Your task to perform on an android device: turn on showing notifications on the lock screen Image 0: 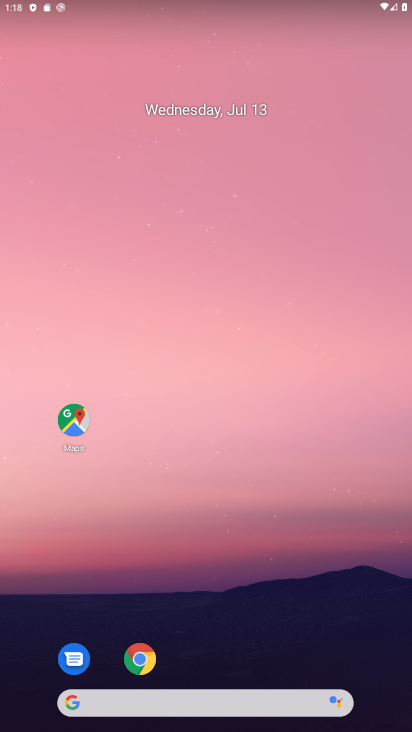
Step 0: drag from (390, 686) to (327, 161)
Your task to perform on an android device: turn on showing notifications on the lock screen Image 1: 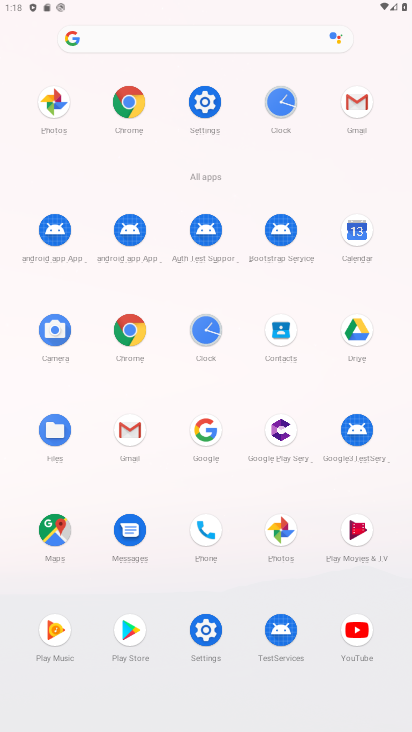
Step 1: click (205, 633)
Your task to perform on an android device: turn on showing notifications on the lock screen Image 2: 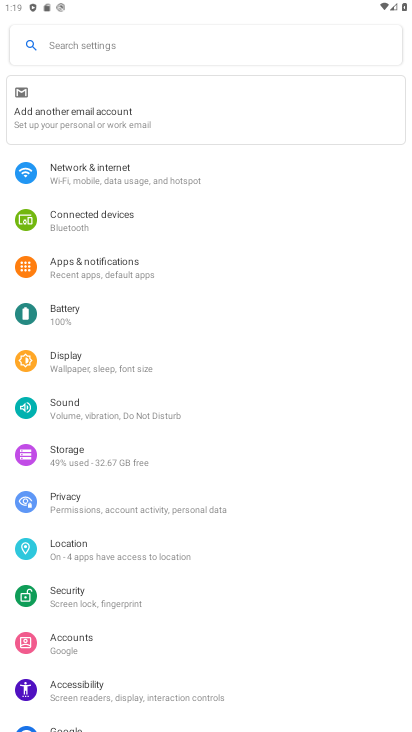
Step 2: click (94, 262)
Your task to perform on an android device: turn on showing notifications on the lock screen Image 3: 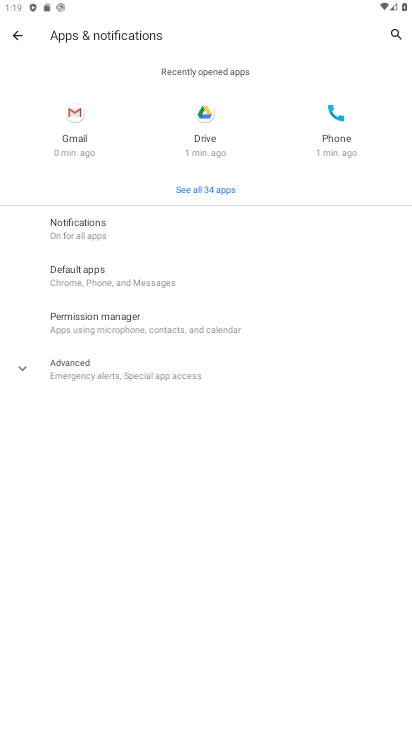
Step 3: click (71, 217)
Your task to perform on an android device: turn on showing notifications on the lock screen Image 4: 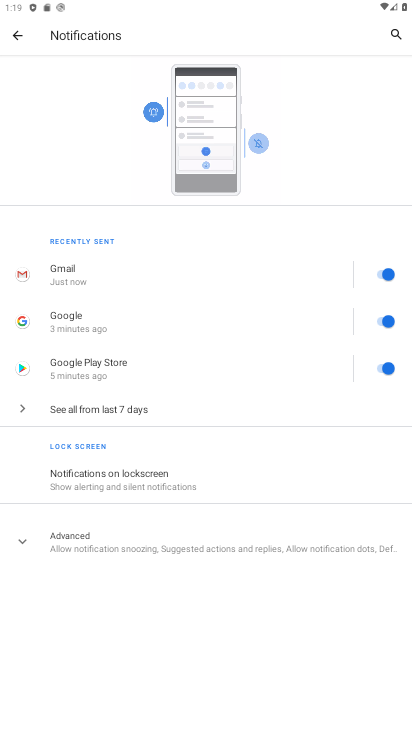
Step 4: click (101, 476)
Your task to perform on an android device: turn on showing notifications on the lock screen Image 5: 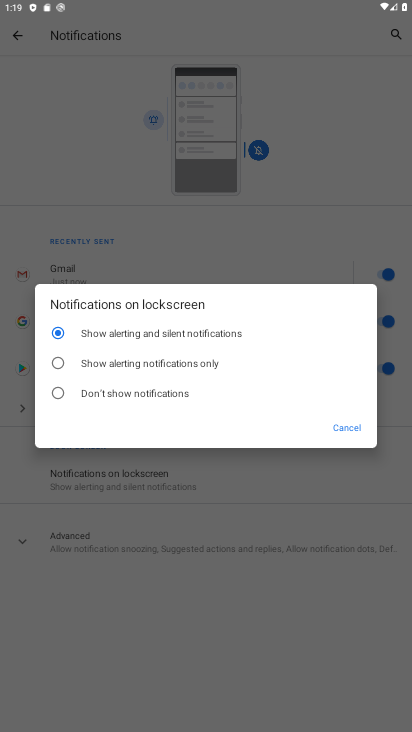
Step 5: task complete